Your task to perform on an android device: turn on wifi Image 0: 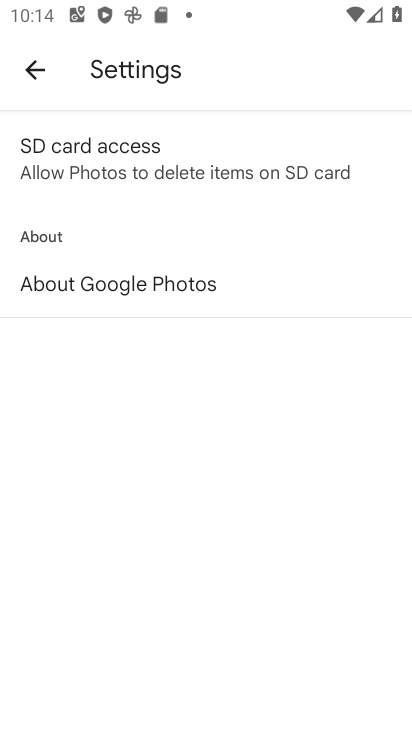
Step 0: press home button
Your task to perform on an android device: turn on wifi Image 1: 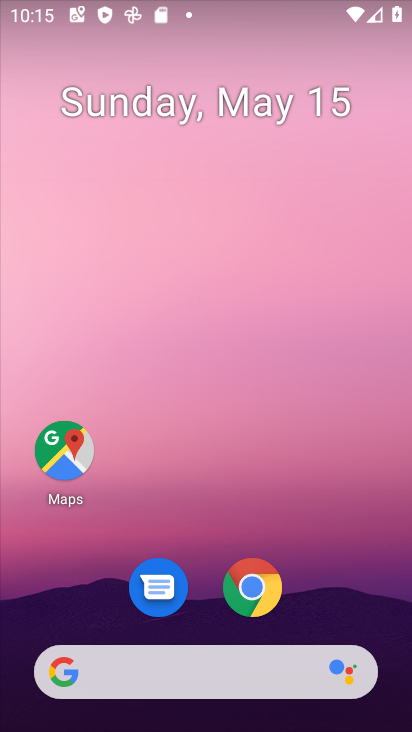
Step 1: task complete